Your task to perform on an android device: Open maps Image 0: 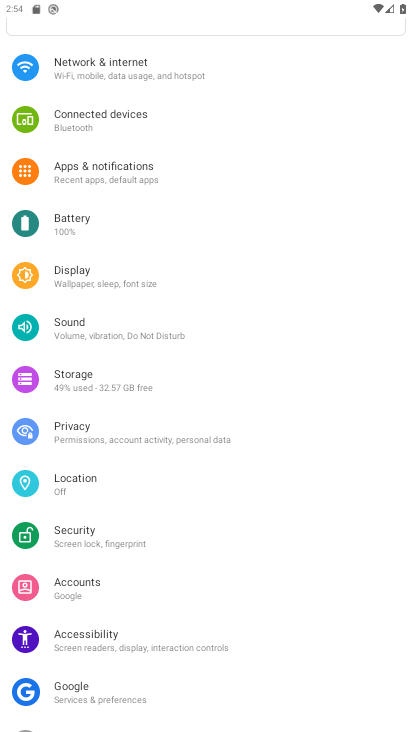
Step 0: press home button
Your task to perform on an android device: Open maps Image 1: 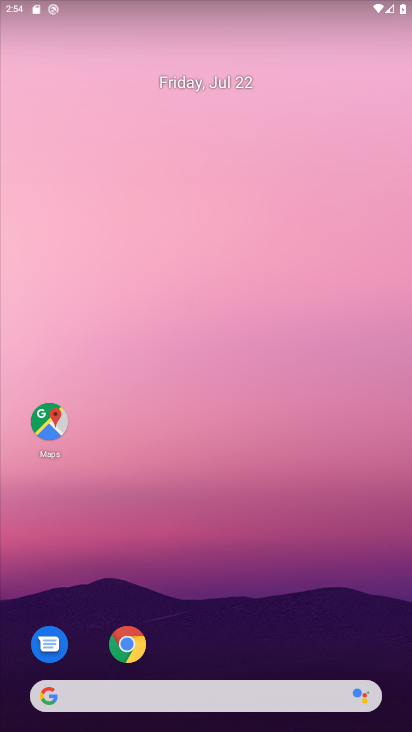
Step 1: click (40, 423)
Your task to perform on an android device: Open maps Image 2: 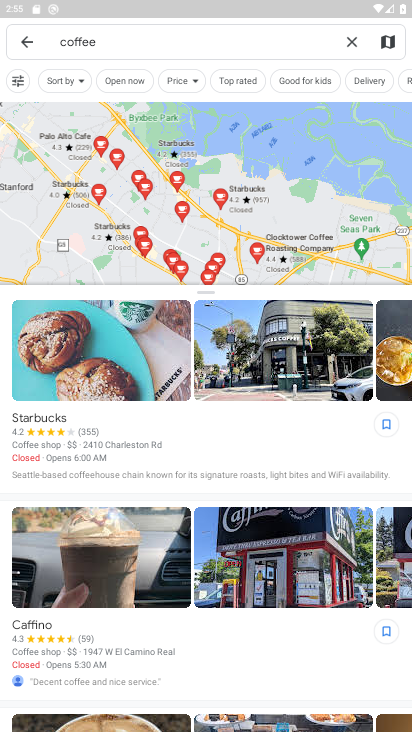
Step 2: task complete